Your task to perform on an android device: Open Youtube and go to the subscriptions tab Image 0: 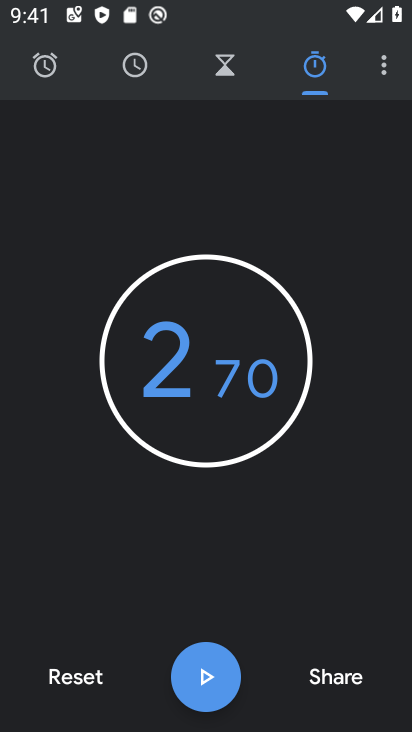
Step 0: press home button
Your task to perform on an android device: Open Youtube and go to the subscriptions tab Image 1: 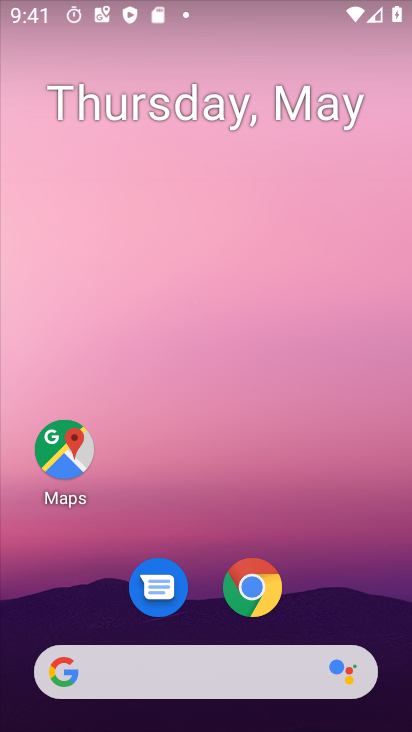
Step 1: drag from (352, 637) to (389, 7)
Your task to perform on an android device: Open Youtube and go to the subscriptions tab Image 2: 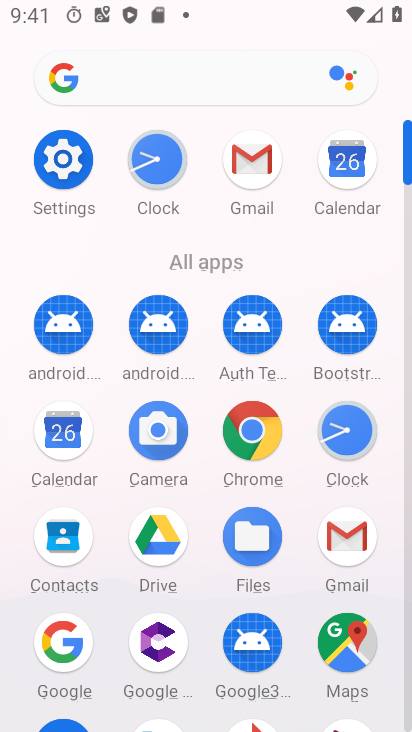
Step 2: drag from (406, 546) to (409, 506)
Your task to perform on an android device: Open Youtube and go to the subscriptions tab Image 3: 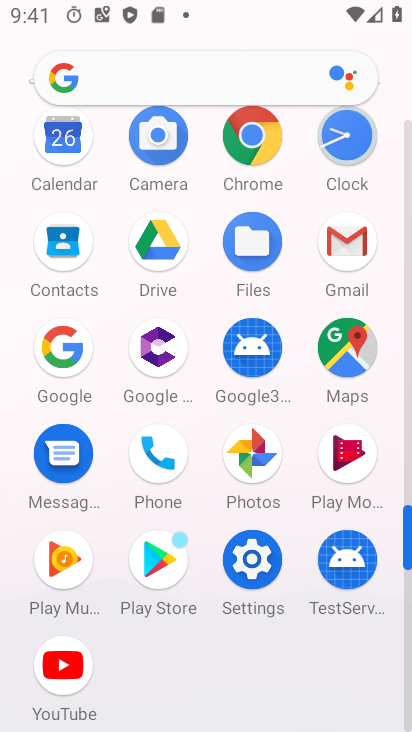
Step 3: click (58, 672)
Your task to perform on an android device: Open Youtube and go to the subscriptions tab Image 4: 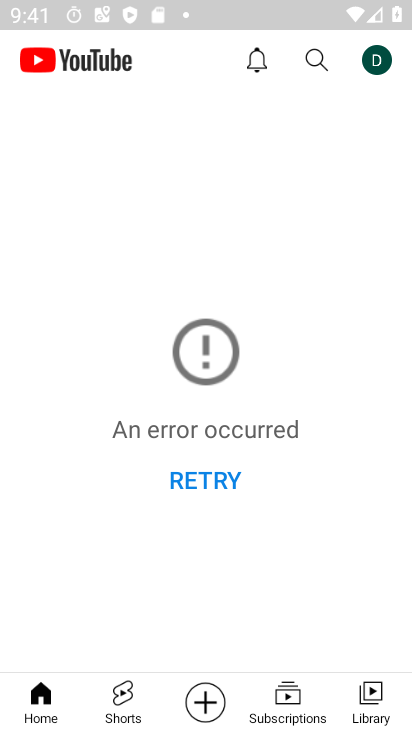
Step 4: click (302, 714)
Your task to perform on an android device: Open Youtube and go to the subscriptions tab Image 5: 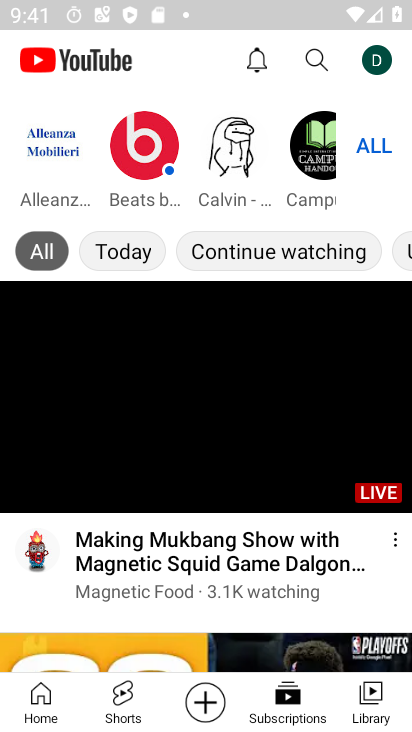
Step 5: task complete